Your task to perform on an android device: Open settings Image 0: 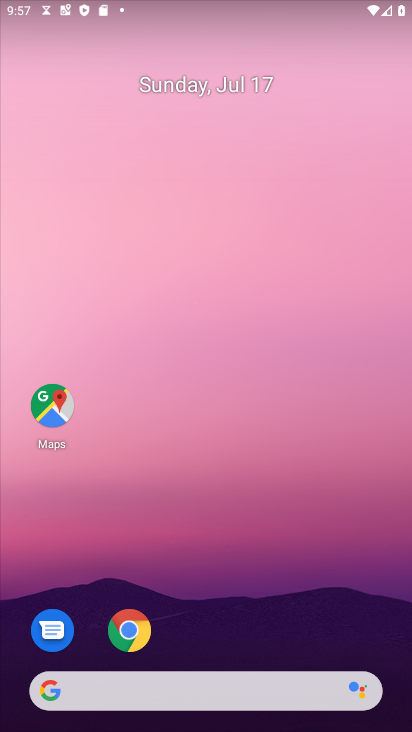
Step 0: drag from (315, 678) to (232, 1)
Your task to perform on an android device: Open settings Image 1: 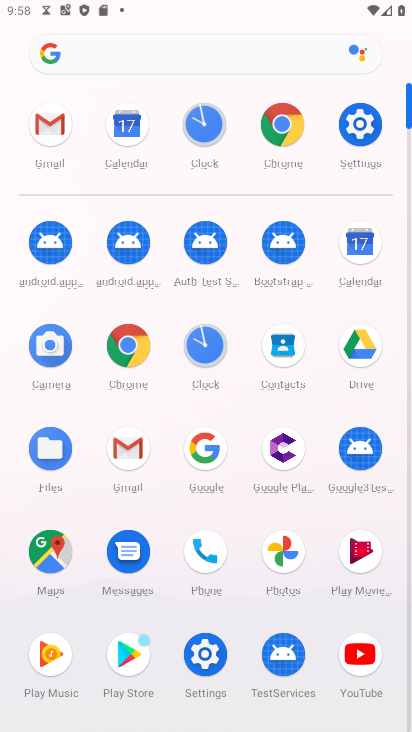
Step 1: click (372, 121)
Your task to perform on an android device: Open settings Image 2: 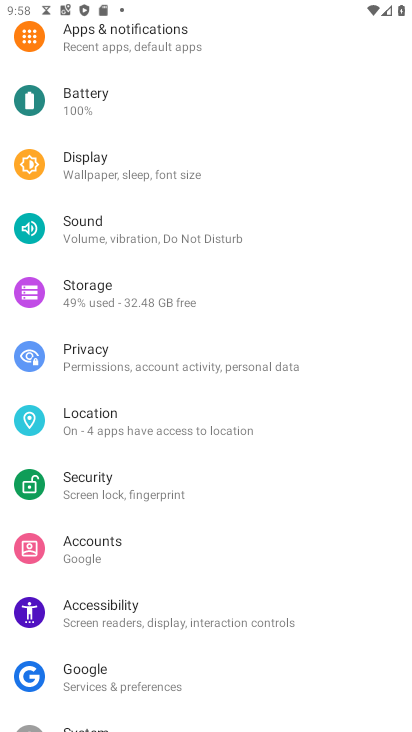
Step 2: task complete